Your task to perform on an android device: make emails show in primary in the gmail app Image 0: 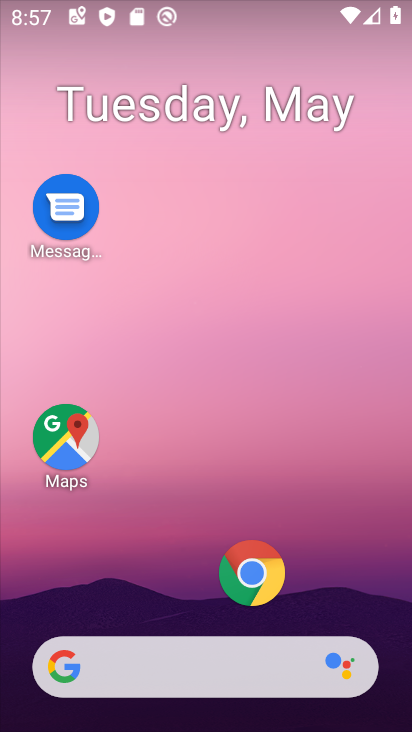
Step 0: click (205, 119)
Your task to perform on an android device: make emails show in primary in the gmail app Image 1: 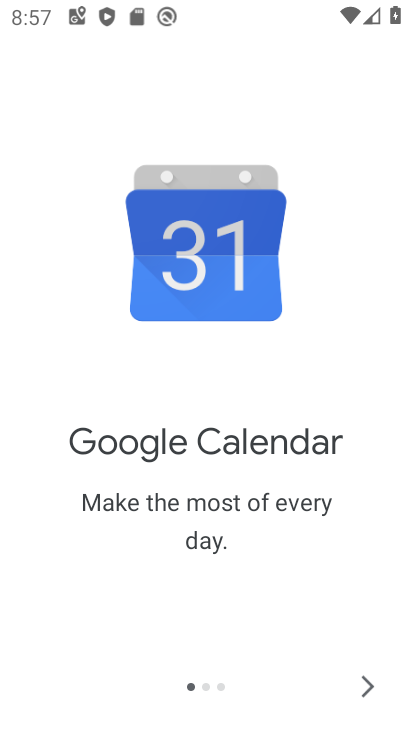
Step 1: click (362, 680)
Your task to perform on an android device: make emails show in primary in the gmail app Image 2: 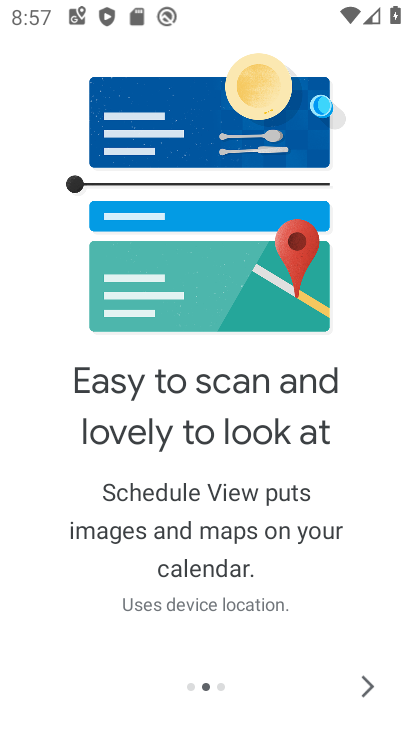
Step 2: click (363, 680)
Your task to perform on an android device: make emails show in primary in the gmail app Image 3: 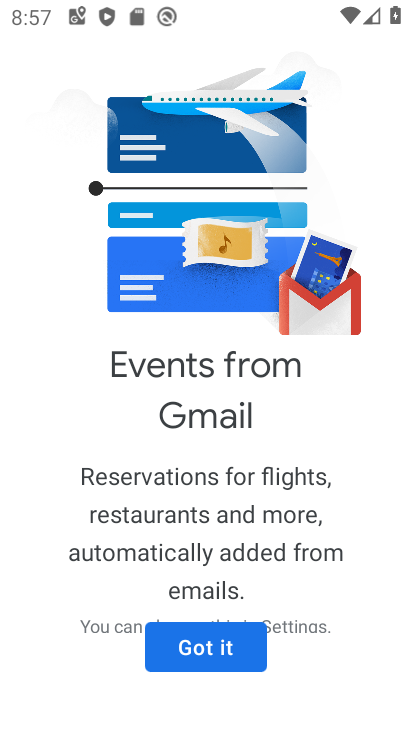
Step 3: click (363, 680)
Your task to perform on an android device: make emails show in primary in the gmail app Image 4: 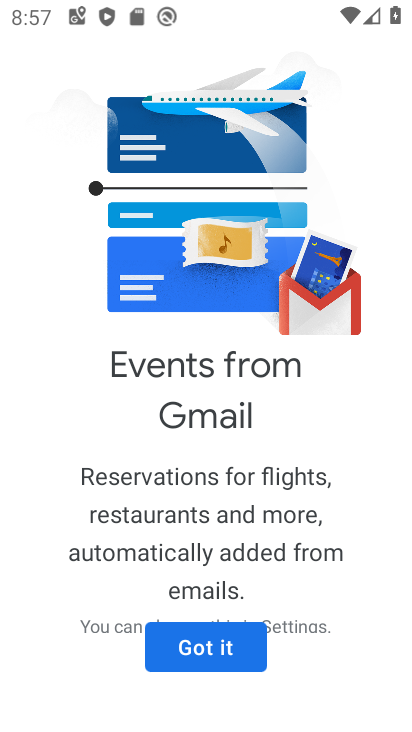
Step 4: click (205, 652)
Your task to perform on an android device: make emails show in primary in the gmail app Image 5: 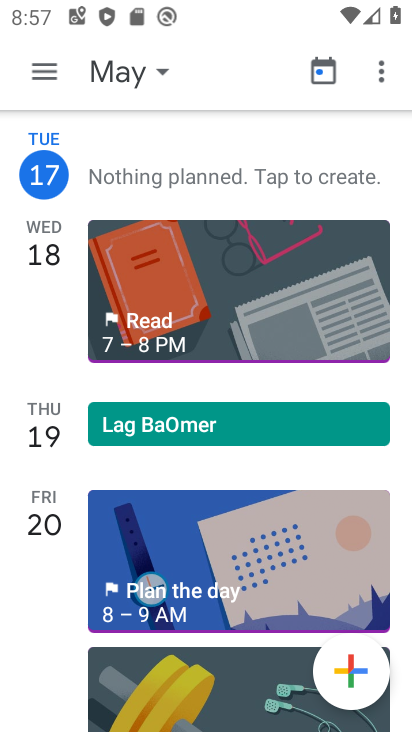
Step 5: press back button
Your task to perform on an android device: make emails show in primary in the gmail app Image 6: 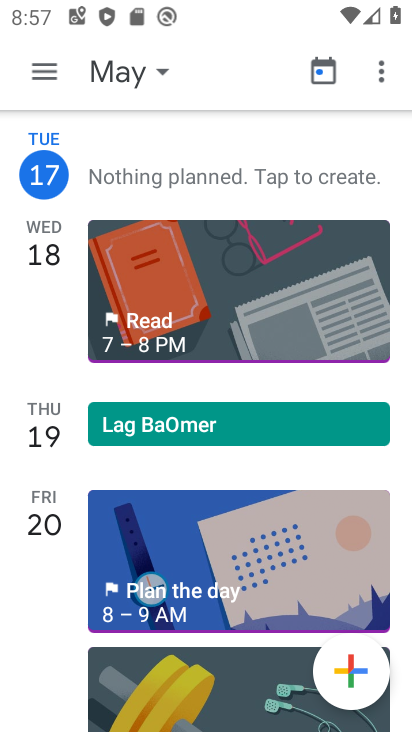
Step 6: press back button
Your task to perform on an android device: make emails show in primary in the gmail app Image 7: 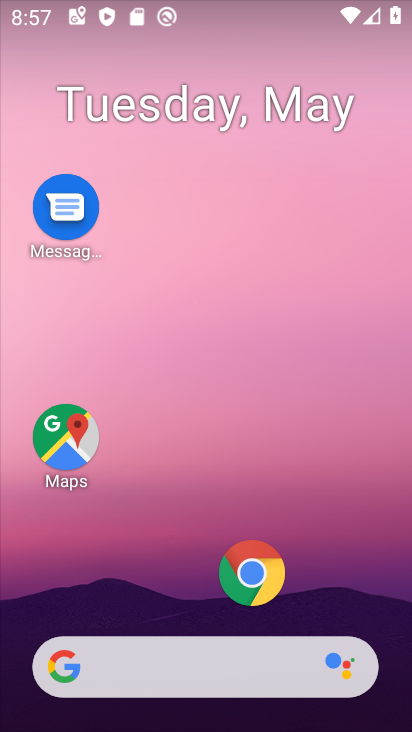
Step 7: drag from (320, 591) to (94, 137)
Your task to perform on an android device: make emails show in primary in the gmail app Image 8: 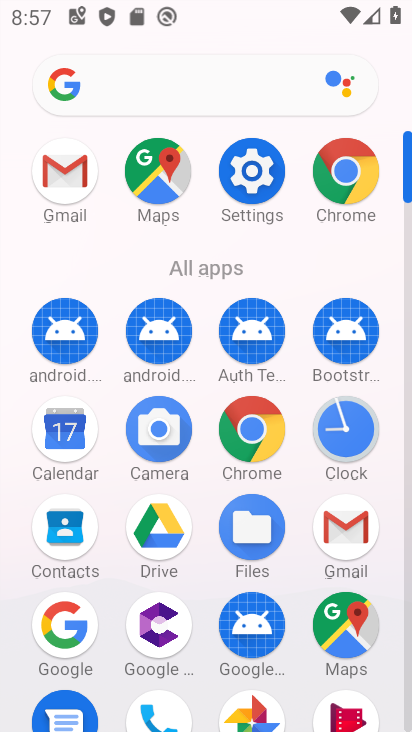
Step 8: click (340, 519)
Your task to perform on an android device: make emails show in primary in the gmail app Image 9: 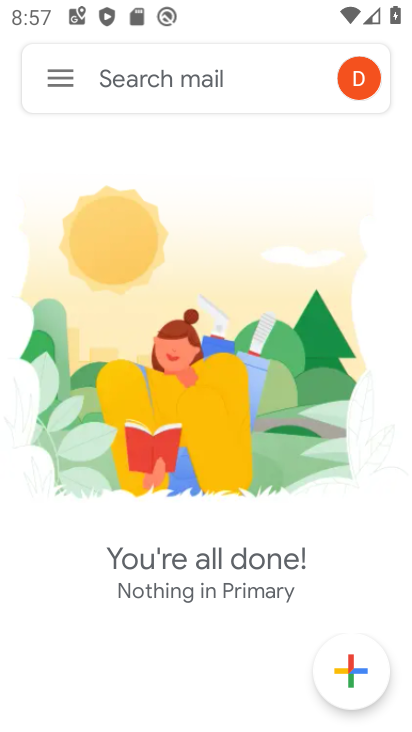
Step 9: click (58, 80)
Your task to perform on an android device: make emails show in primary in the gmail app Image 10: 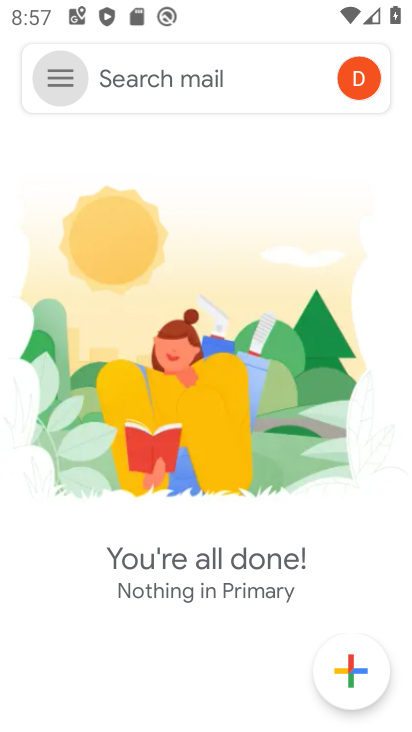
Step 10: click (58, 80)
Your task to perform on an android device: make emails show in primary in the gmail app Image 11: 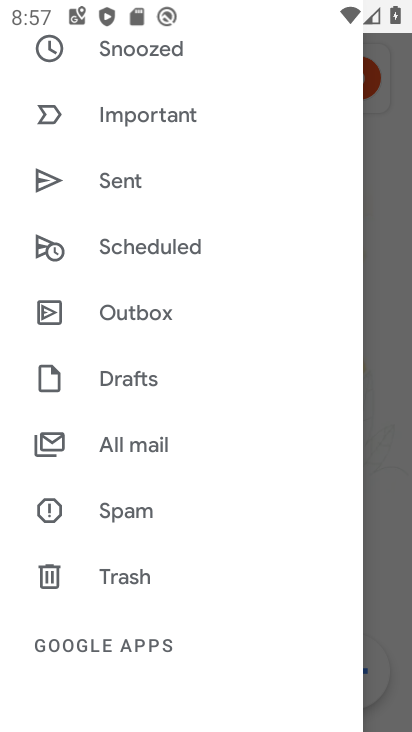
Step 11: click (132, 429)
Your task to perform on an android device: make emails show in primary in the gmail app Image 12: 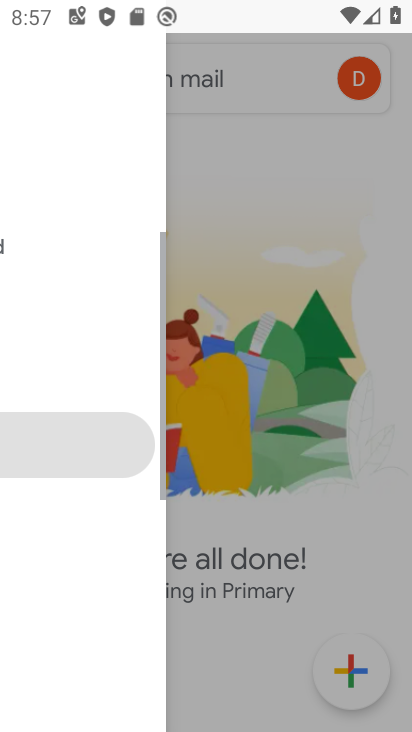
Step 12: click (123, 446)
Your task to perform on an android device: make emails show in primary in the gmail app Image 13: 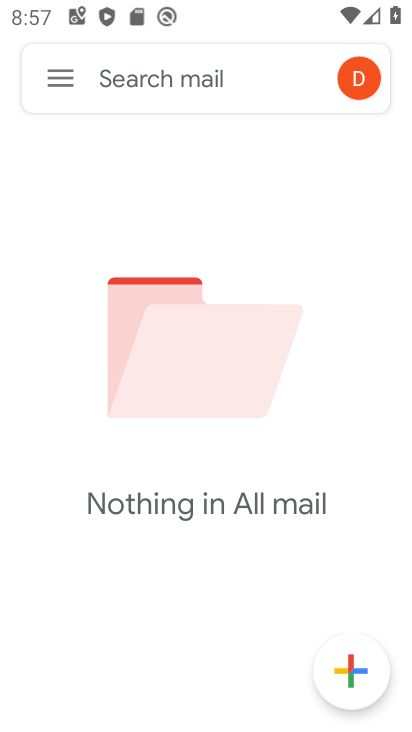
Step 13: press back button
Your task to perform on an android device: make emails show in primary in the gmail app Image 14: 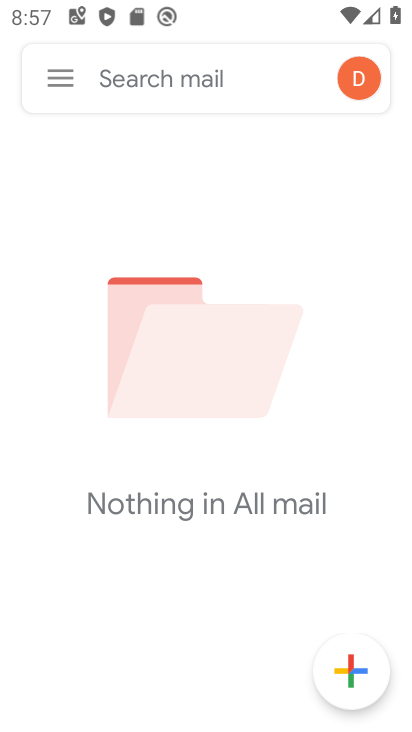
Step 14: press back button
Your task to perform on an android device: make emails show in primary in the gmail app Image 15: 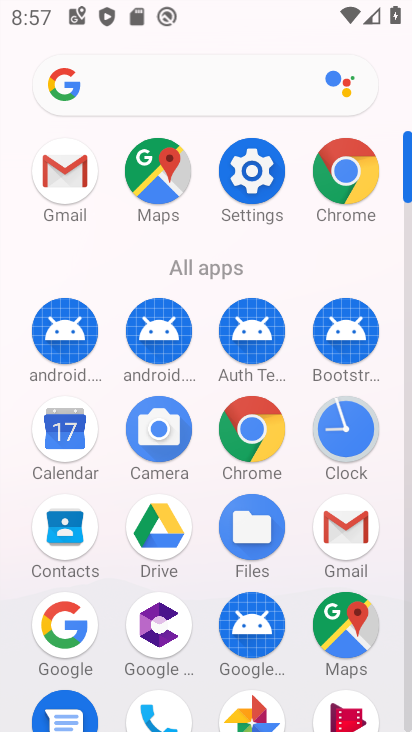
Step 15: click (69, 175)
Your task to perform on an android device: make emails show in primary in the gmail app Image 16: 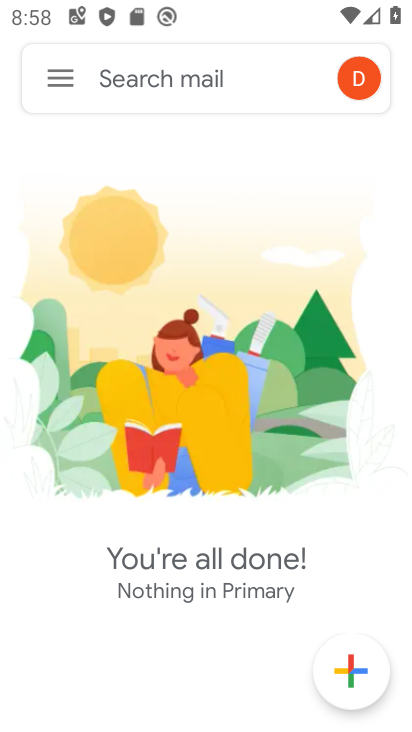
Step 16: click (55, 91)
Your task to perform on an android device: make emails show in primary in the gmail app Image 17: 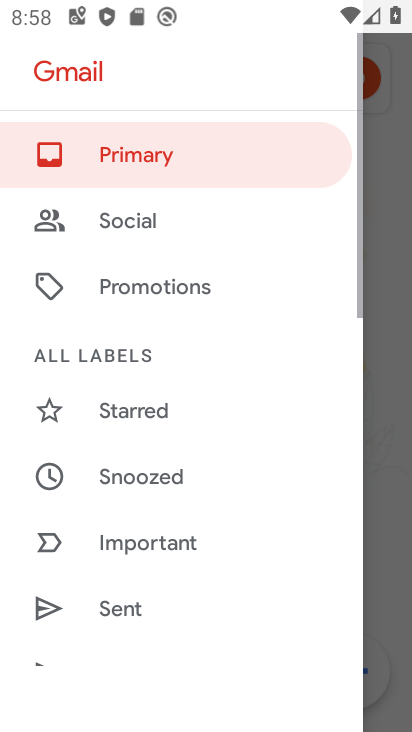
Step 17: click (55, 91)
Your task to perform on an android device: make emails show in primary in the gmail app Image 18: 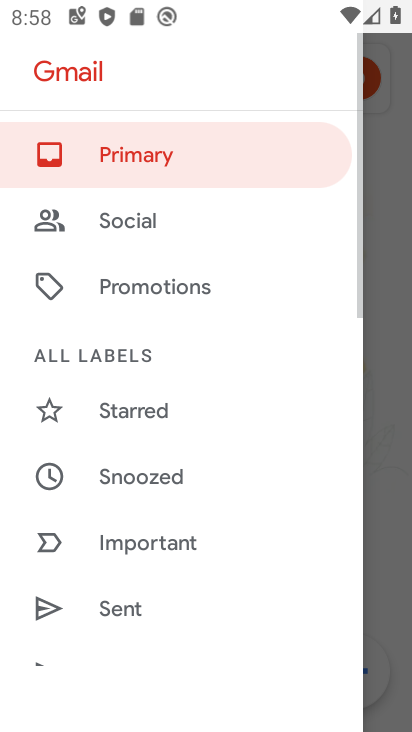
Step 18: drag from (149, 543) to (52, 172)
Your task to perform on an android device: make emails show in primary in the gmail app Image 19: 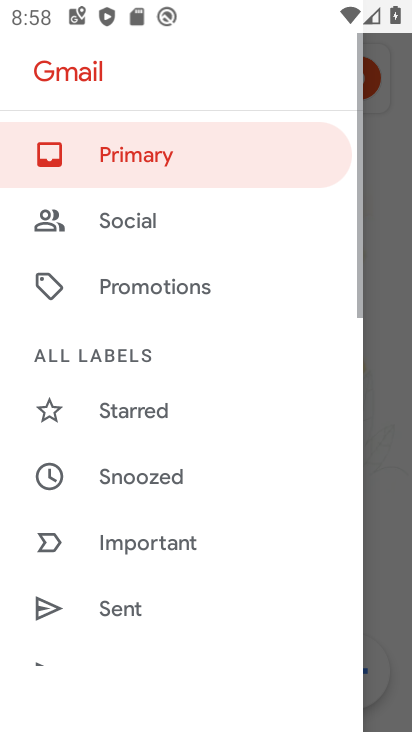
Step 19: drag from (108, 529) to (91, 88)
Your task to perform on an android device: make emails show in primary in the gmail app Image 20: 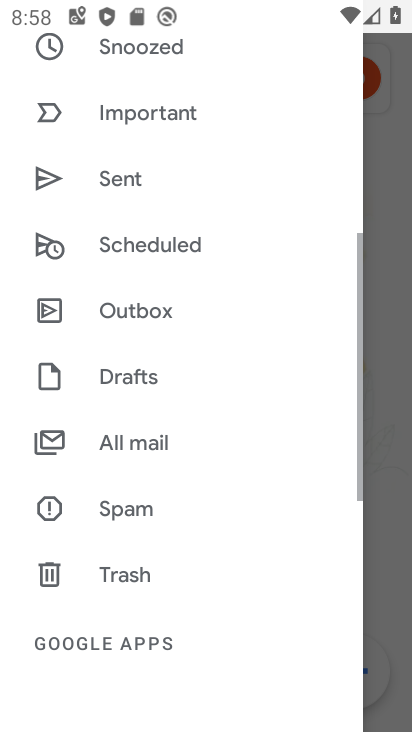
Step 20: drag from (159, 568) to (163, 5)
Your task to perform on an android device: make emails show in primary in the gmail app Image 21: 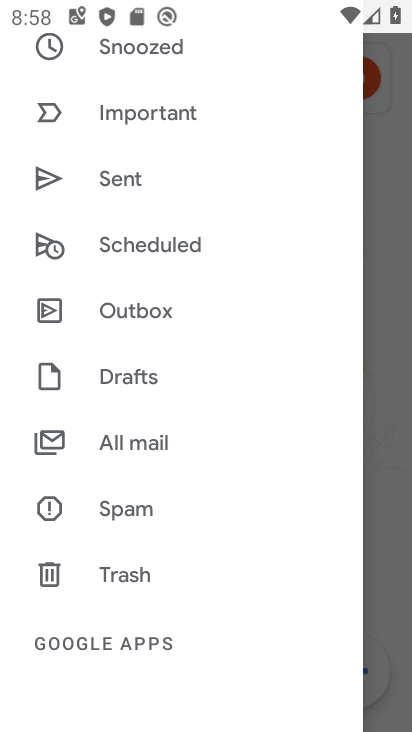
Step 21: drag from (183, 542) to (165, 10)
Your task to perform on an android device: make emails show in primary in the gmail app Image 22: 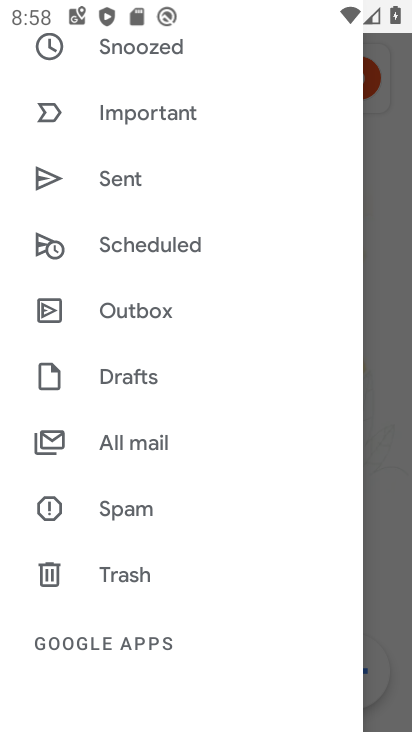
Step 22: drag from (133, 533) to (147, 6)
Your task to perform on an android device: make emails show in primary in the gmail app Image 23: 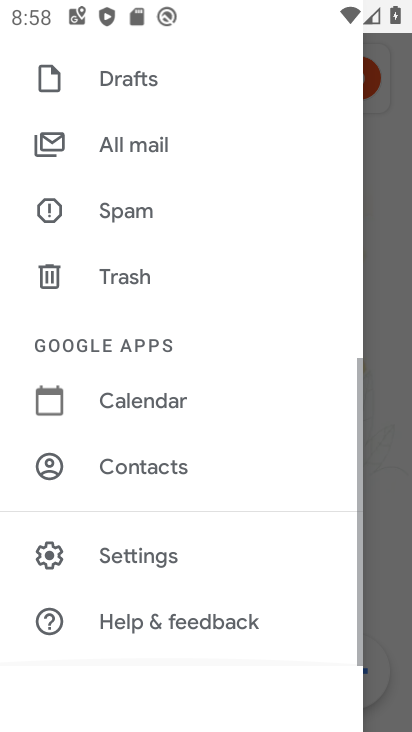
Step 23: drag from (198, 393) to (189, 10)
Your task to perform on an android device: make emails show in primary in the gmail app Image 24: 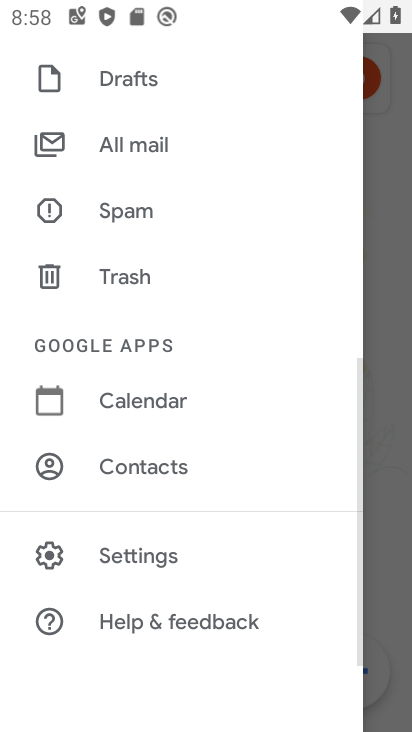
Step 24: click (123, 556)
Your task to perform on an android device: make emails show in primary in the gmail app Image 25: 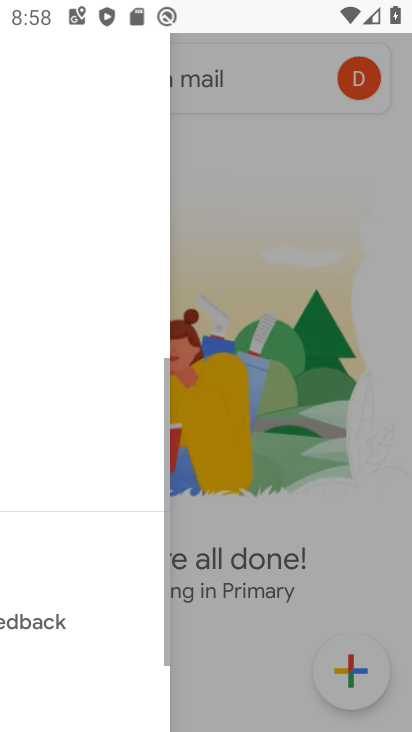
Step 25: click (124, 554)
Your task to perform on an android device: make emails show in primary in the gmail app Image 26: 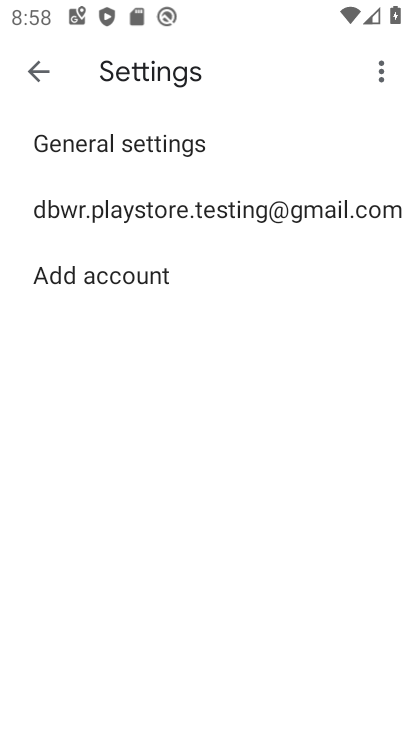
Step 26: click (140, 202)
Your task to perform on an android device: make emails show in primary in the gmail app Image 27: 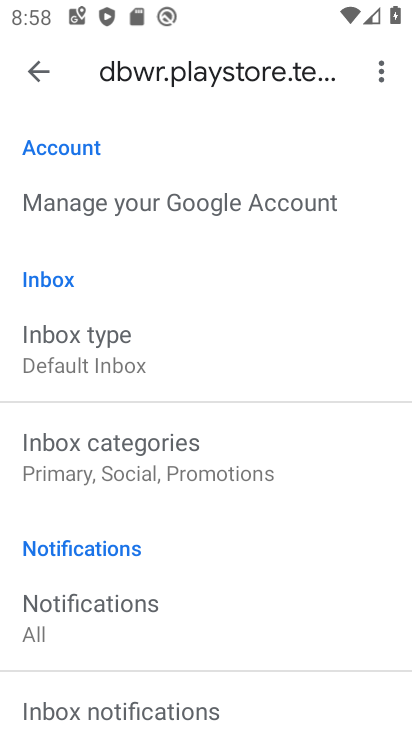
Step 27: click (90, 458)
Your task to perform on an android device: make emails show in primary in the gmail app Image 28: 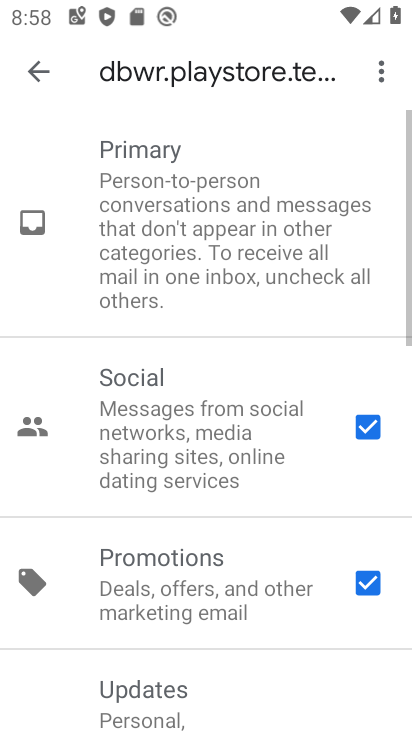
Step 28: click (181, 220)
Your task to perform on an android device: make emails show in primary in the gmail app Image 29: 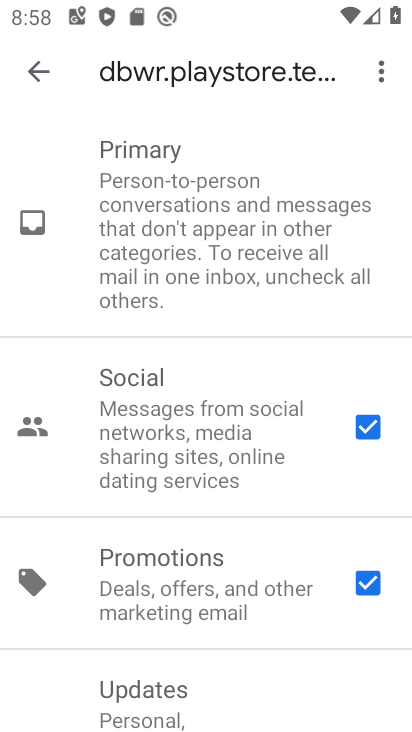
Step 29: click (31, 70)
Your task to perform on an android device: make emails show in primary in the gmail app Image 30: 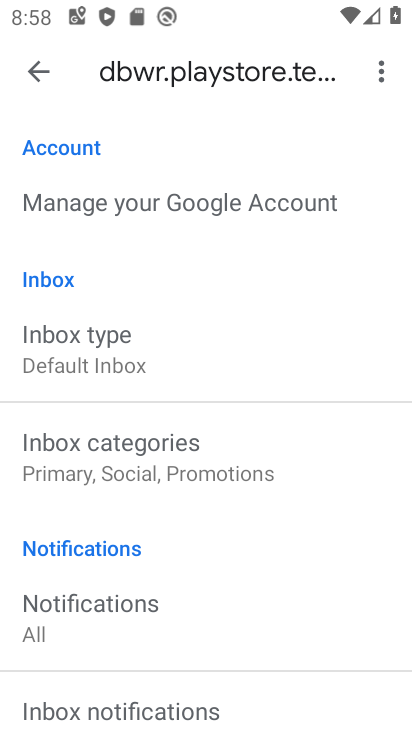
Step 30: click (142, 438)
Your task to perform on an android device: make emails show in primary in the gmail app Image 31: 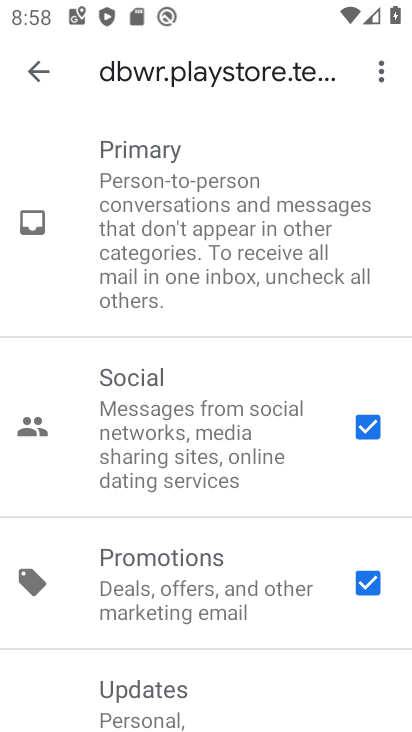
Step 31: click (246, 260)
Your task to perform on an android device: make emails show in primary in the gmail app Image 32: 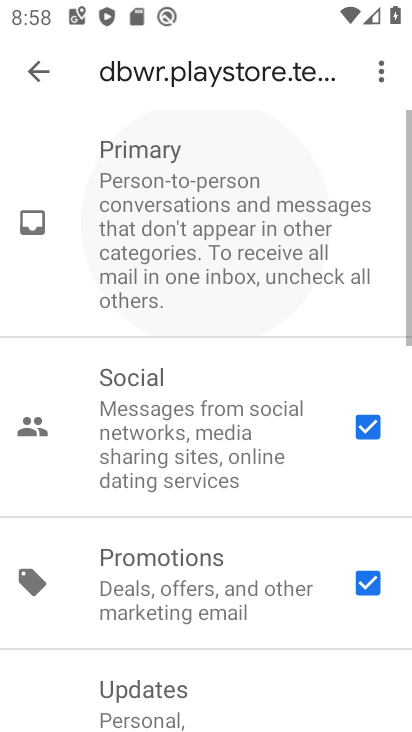
Step 32: click (246, 260)
Your task to perform on an android device: make emails show in primary in the gmail app Image 33: 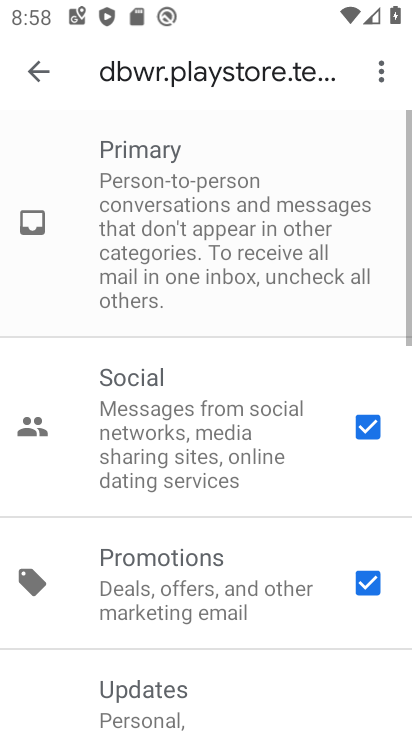
Step 33: click (245, 259)
Your task to perform on an android device: make emails show in primary in the gmail app Image 34: 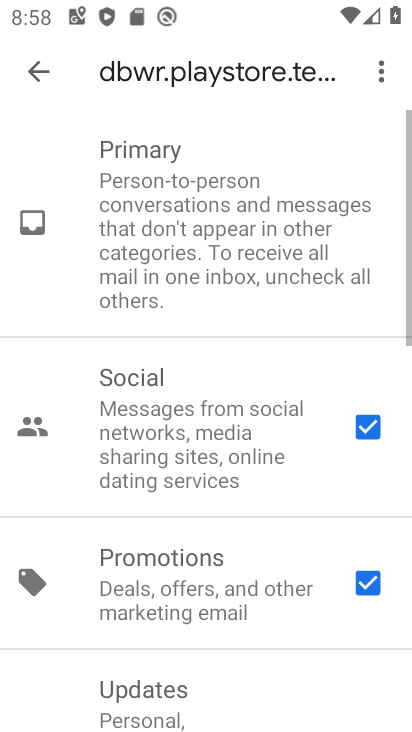
Step 34: task complete